Your task to perform on an android device: Go to Yahoo.com Image 0: 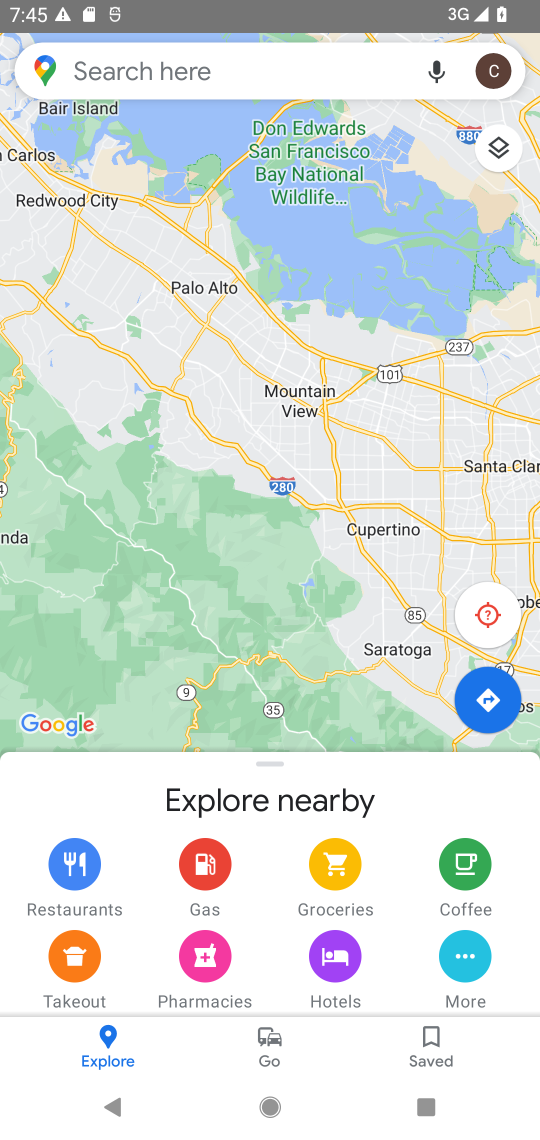
Step 0: press home button
Your task to perform on an android device: Go to Yahoo.com Image 1: 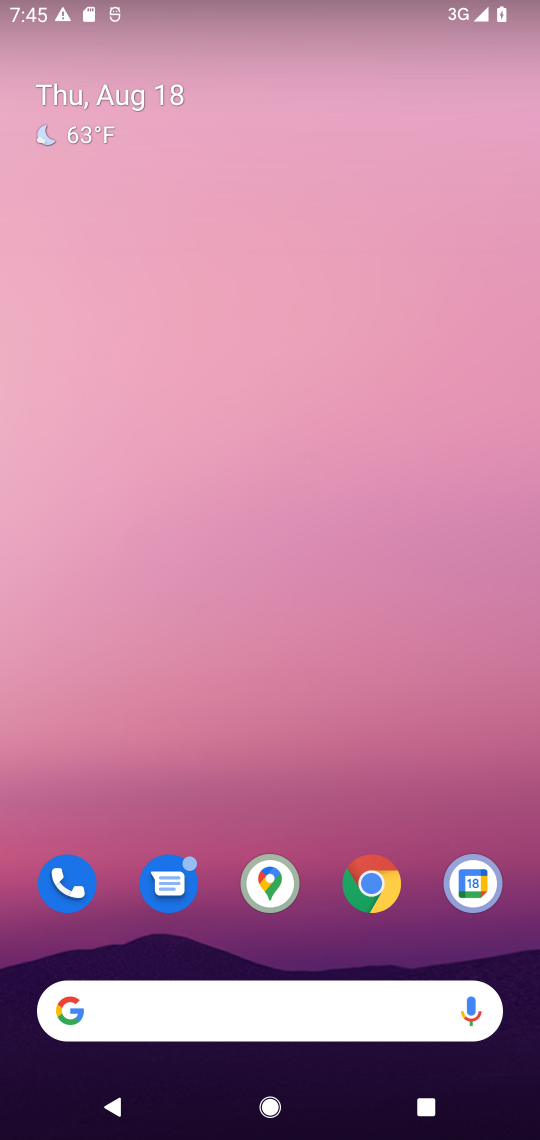
Step 1: click (126, 1004)
Your task to perform on an android device: Go to Yahoo.com Image 2: 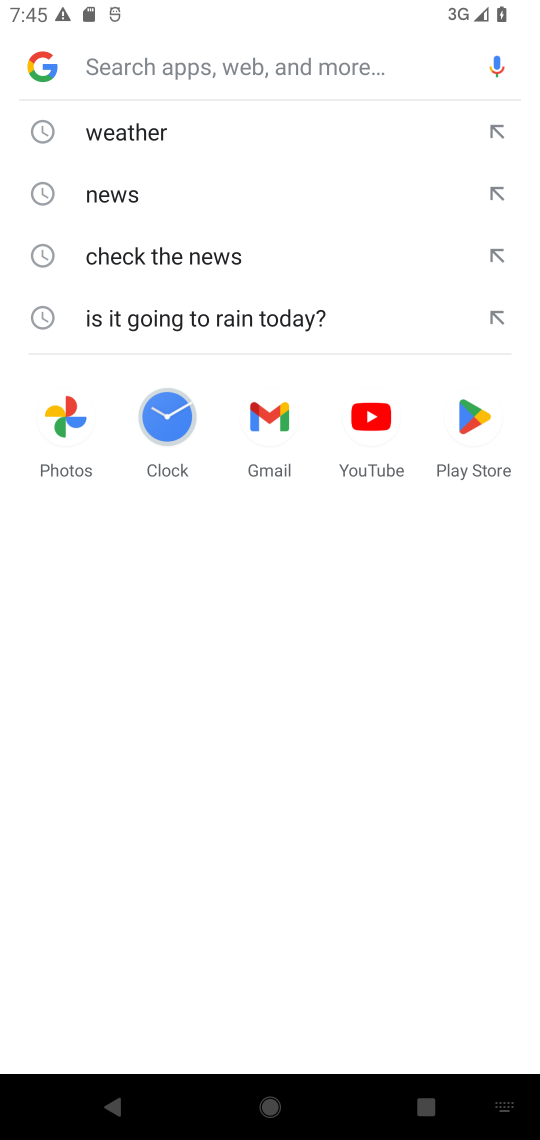
Step 2: type "Yahoo.com"
Your task to perform on an android device: Go to Yahoo.com Image 3: 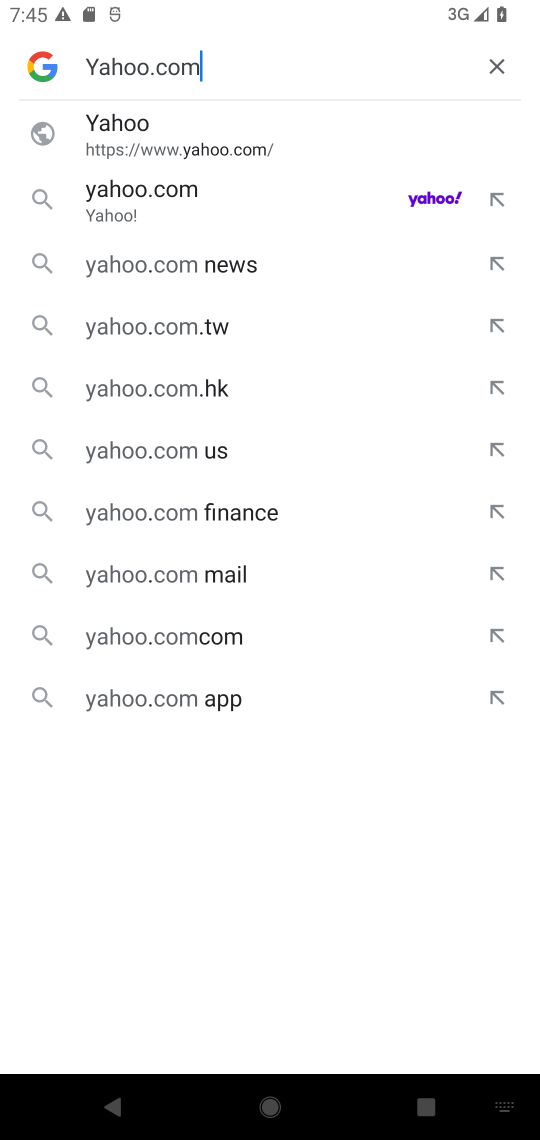
Step 3: click (133, 205)
Your task to perform on an android device: Go to Yahoo.com Image 4: 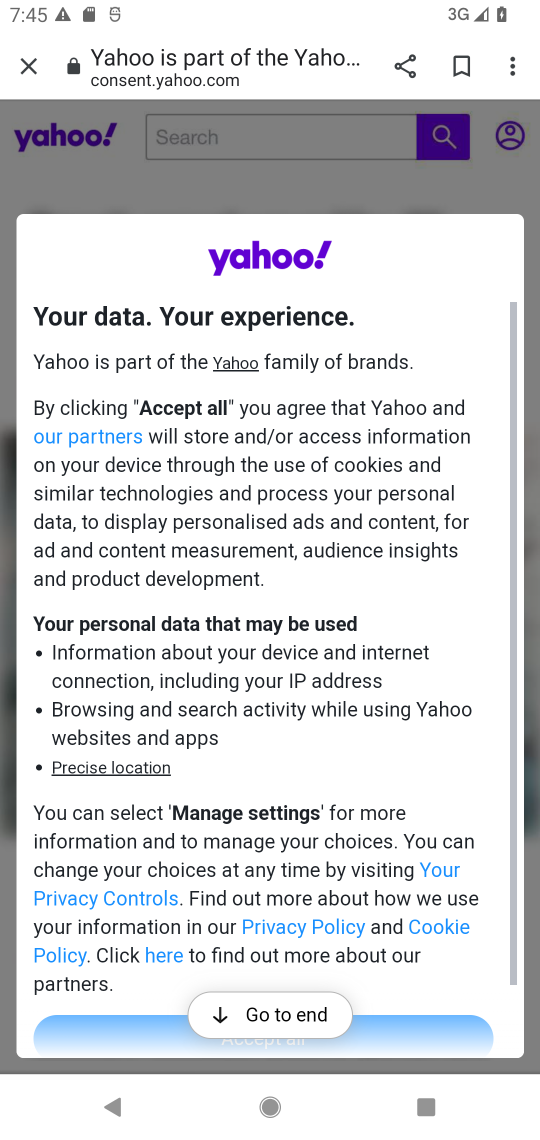
Step 4: task complete